Your task to perform on an android device: open a new tab in the chrome app Image 0: 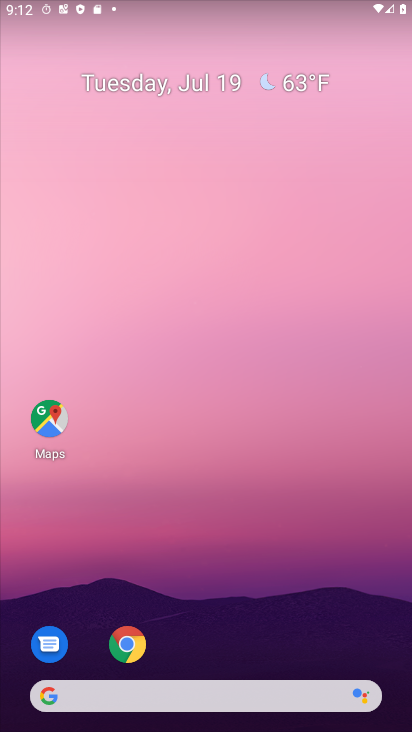
Step 0: drag from (192, 679) to (274, 144)
Your task to perform on an android device: open a new tab in the chrome app Image 1: 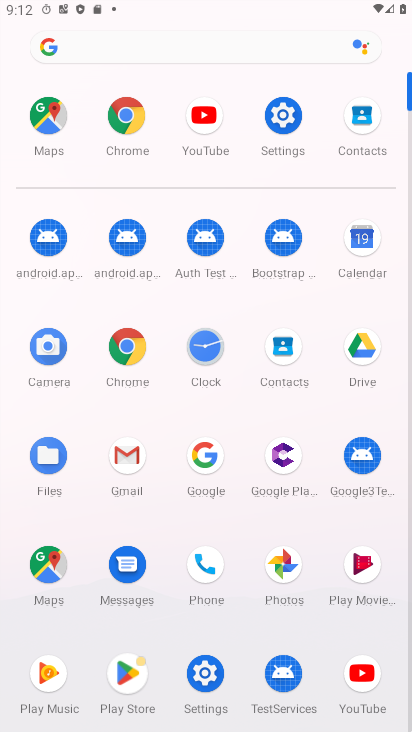
Step 1: click (142, 344)
Your task to perform on an android device: open a new tab in the chrome app Image 2: 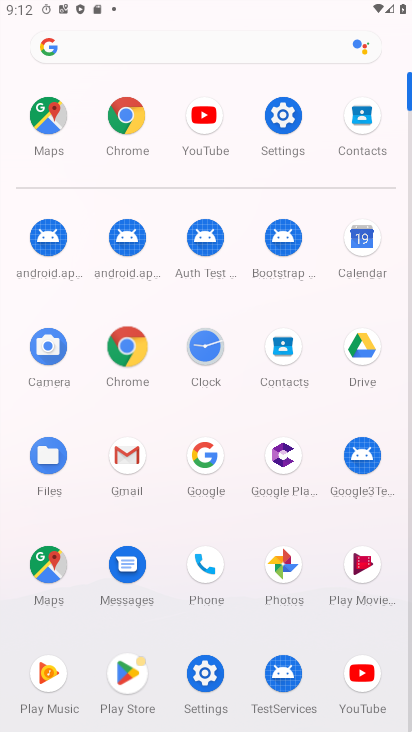
Step 2: click (135, 349)
Your task to perform on an android device: open a new tab in the chrome app Image 3: 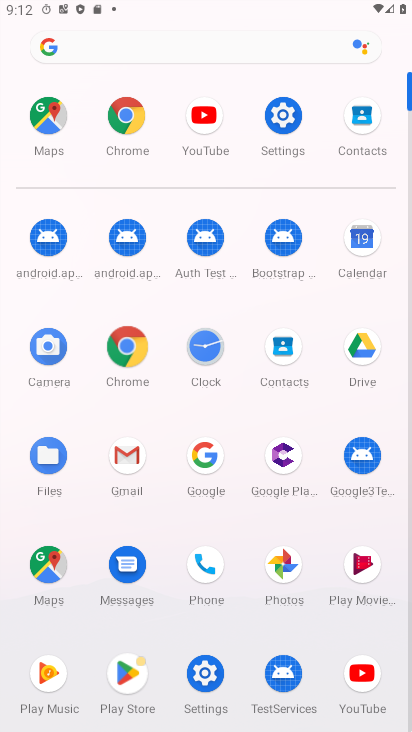
Step 3: click (135, 349)
Your task to perform on an android device: open a new tab in the chrome app Image 4: 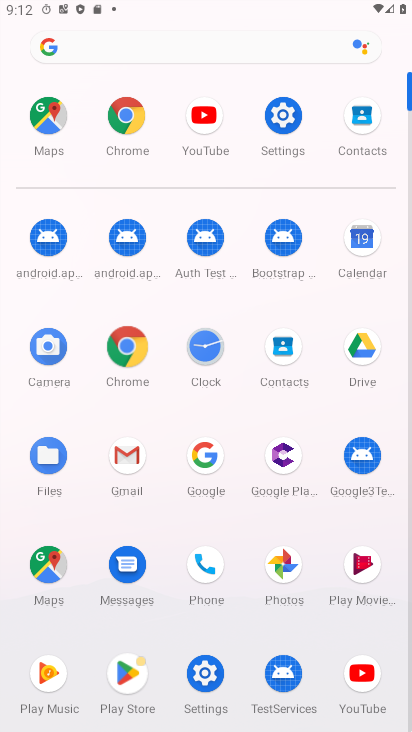
Step 4: click (137, 350)
Your task to perform on an android device: open a new tab in the chrome app Image 5: 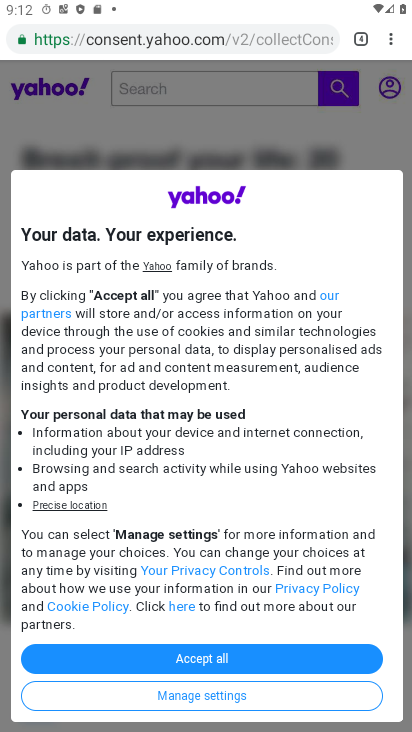
Step 5: drag from (393, 36) to (263, 87)
Your task to perform on an android device: open a new tab in the chrome app Image 6: 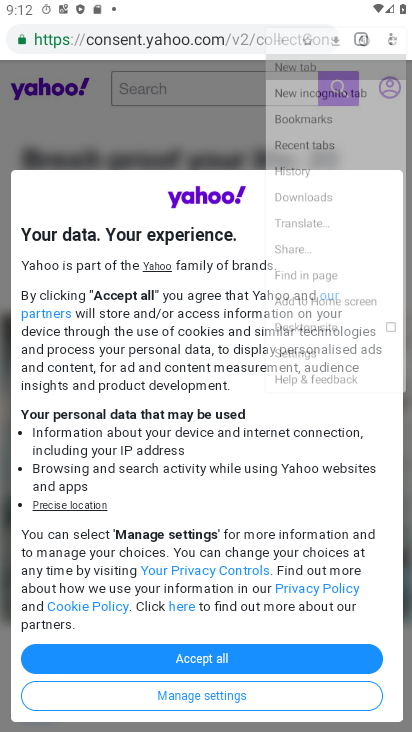
Step 6: click (264, 85)
Your task to perform on an android device: open a new tab in the chrome app Image 7: 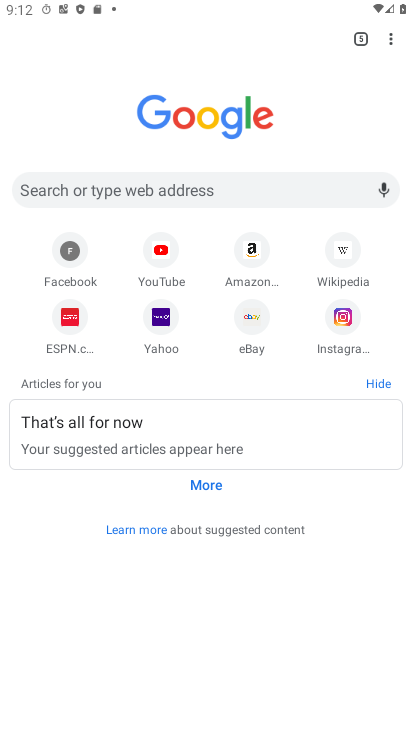
Step 7: task complete